Your task to perform on an android device: find which apps use the phone's location Image 0: 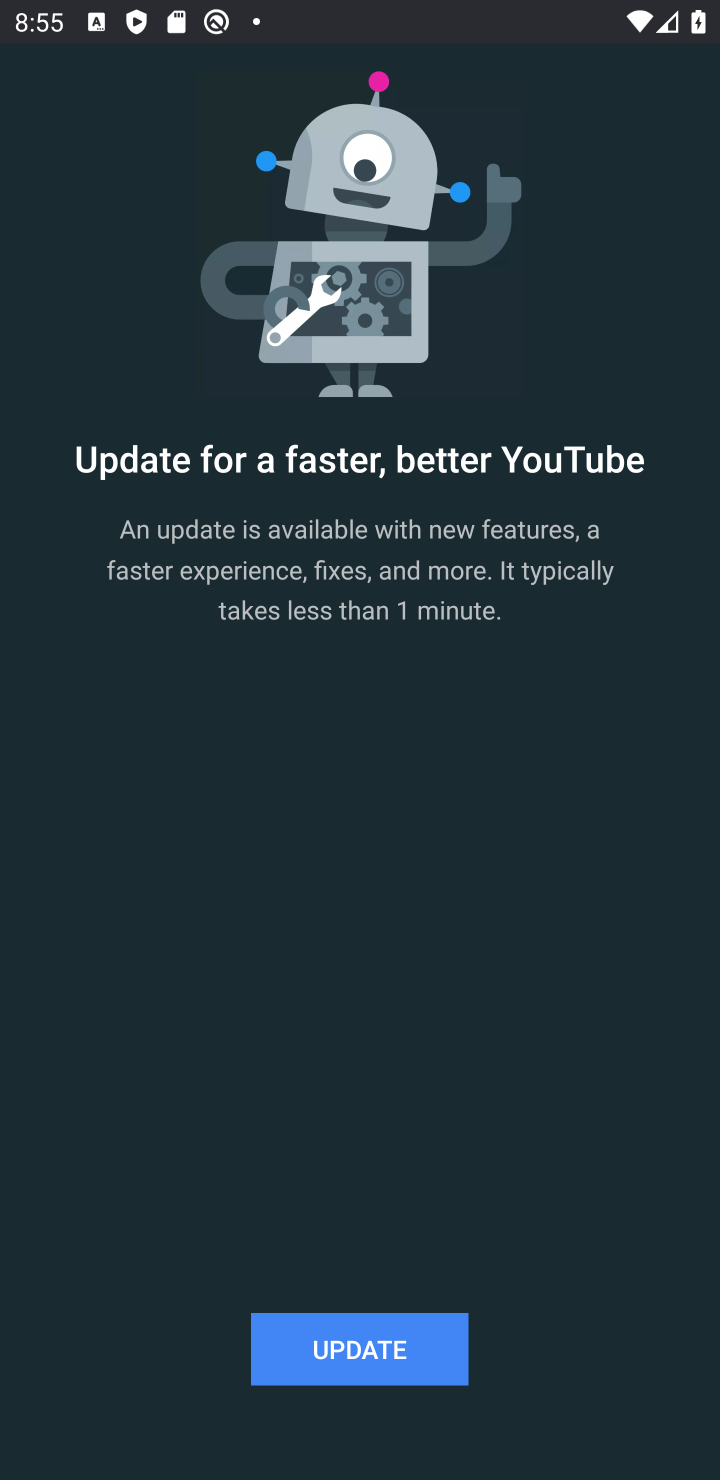
Step 0: press home button
Your task to perform on an android device: find which apps use the phone's location Image 1: 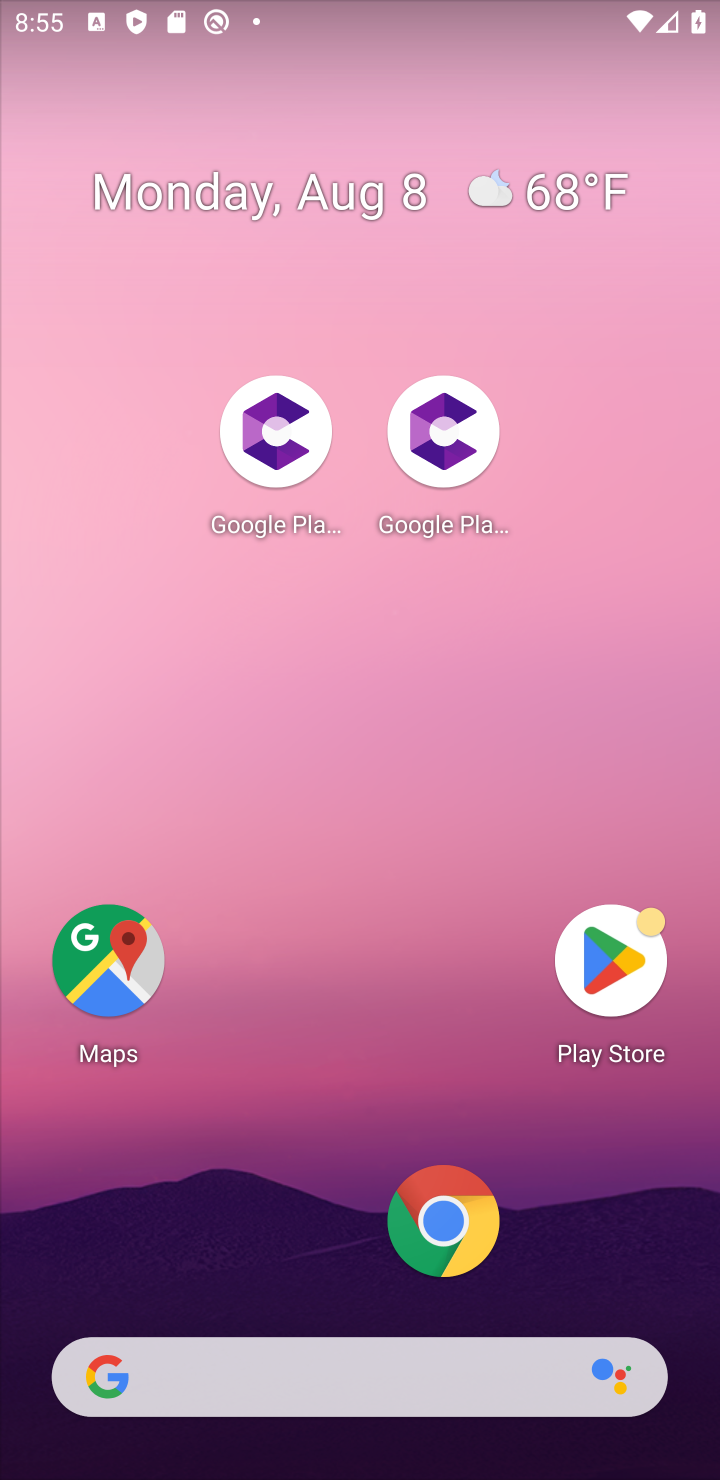
Step 1: drag from (244, 1294) to (325, 194)
Your task to perform on an android device: find which apps use the phone's location Image 2: 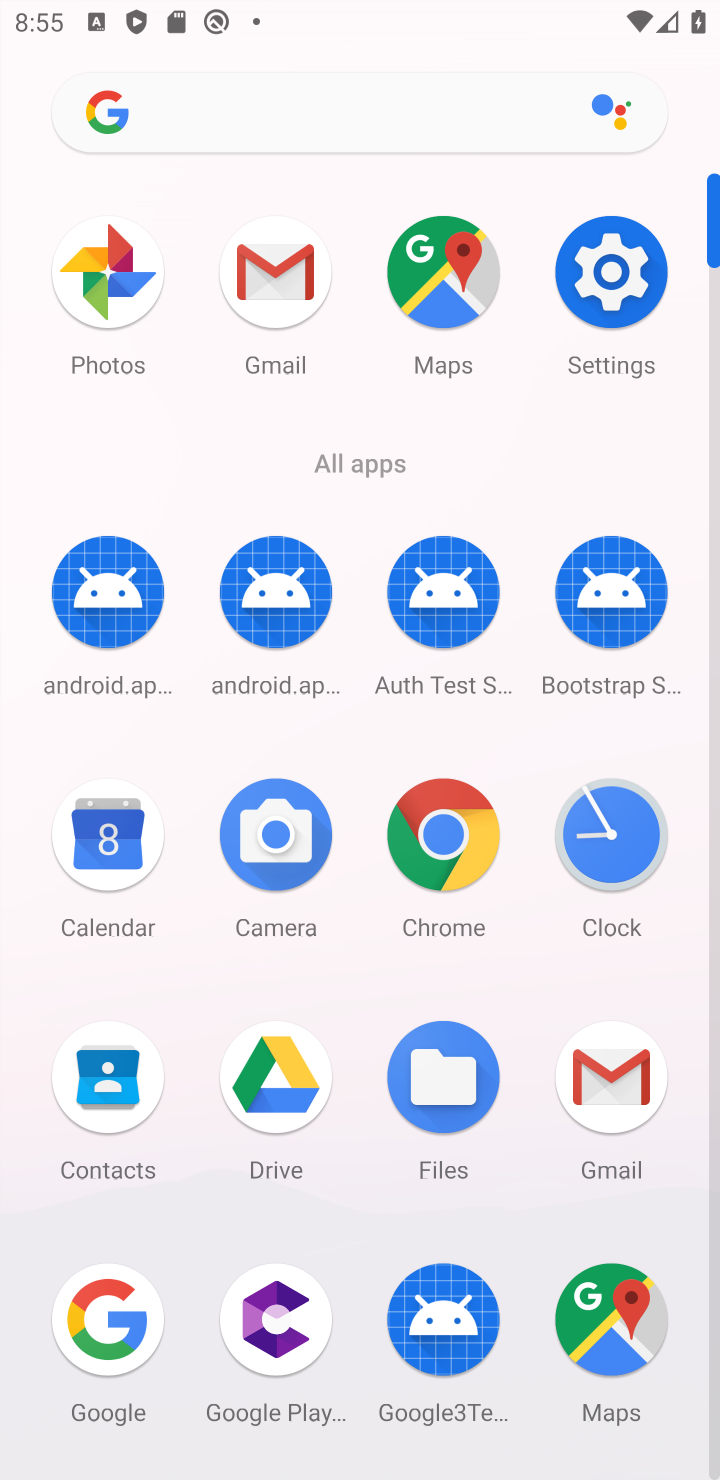
Step 2: click (605, 273)
Your task to perform on an android device: find which apps use the phone's location Image 3: 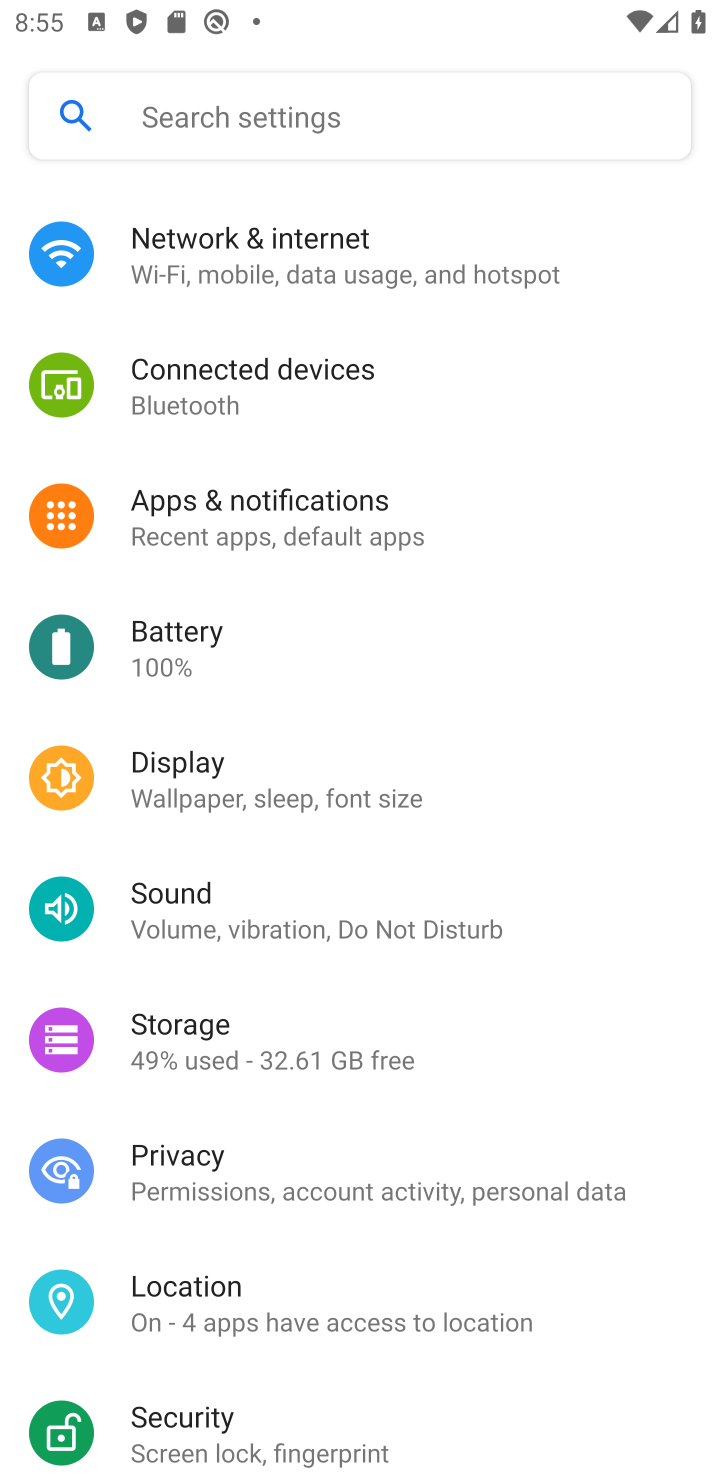
Step 3: click (605, 273)
Your task to perform on an android device: find which apps use the phone's location Image 4: 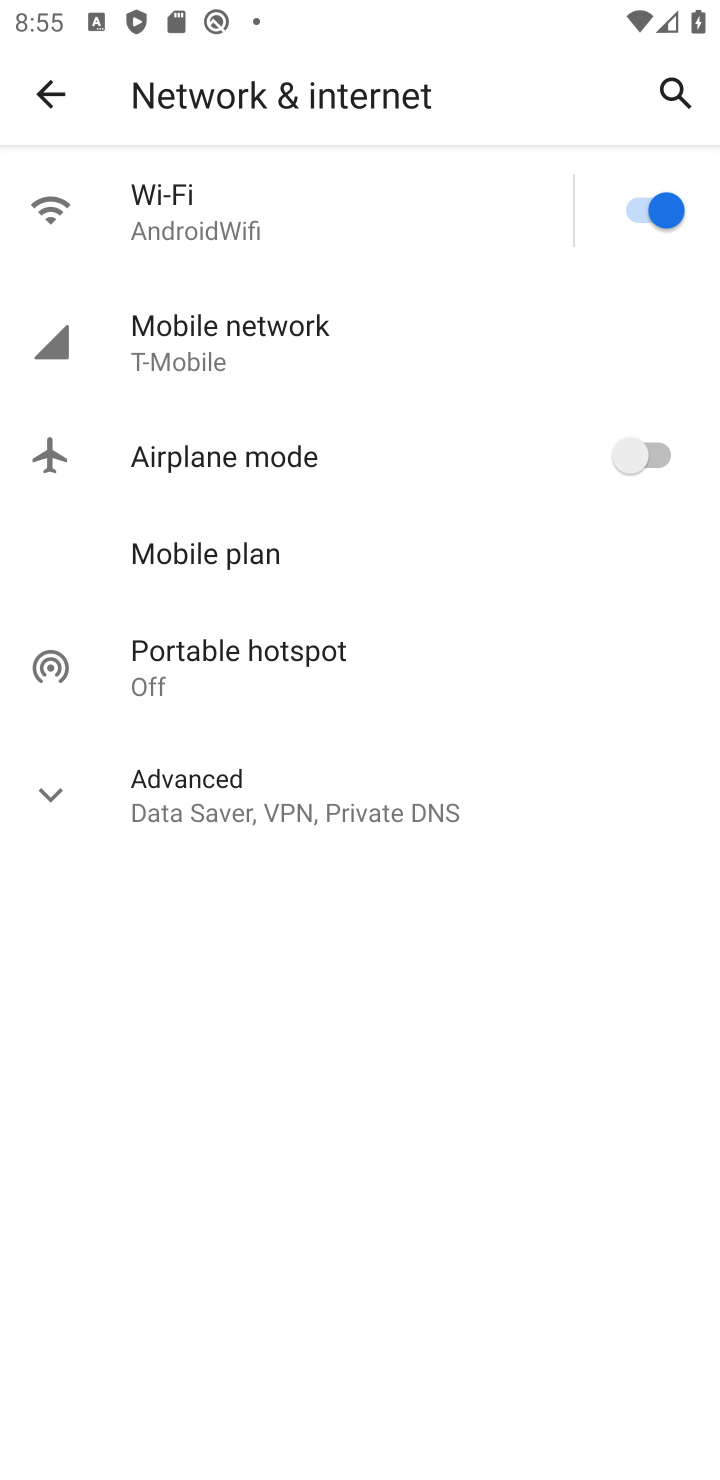
Step 4: click (244, 1328)
Your task to perform on an android device: find which apps use the phone's location Image 5: 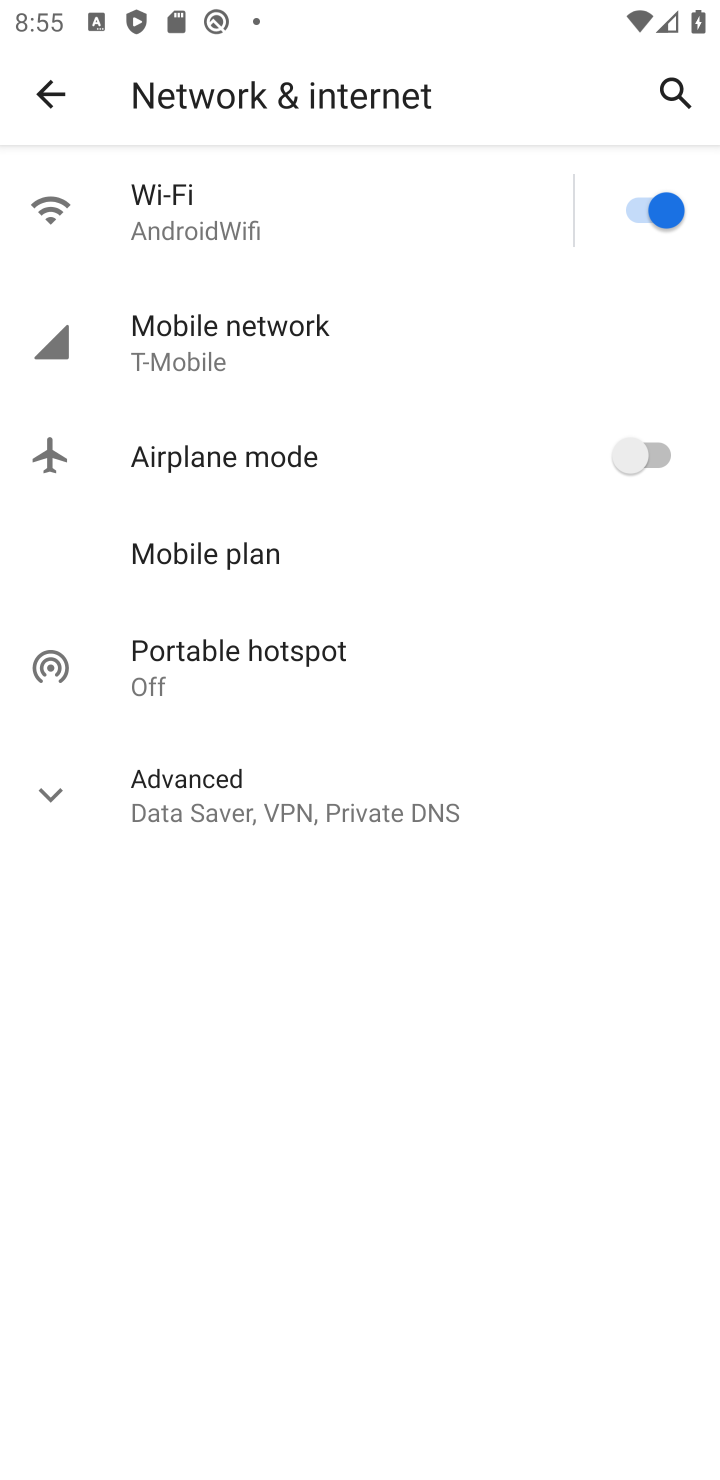
Step 5: click (49, 73)
Your task to perform on an android device: find which apps use the phone's location Image 6: 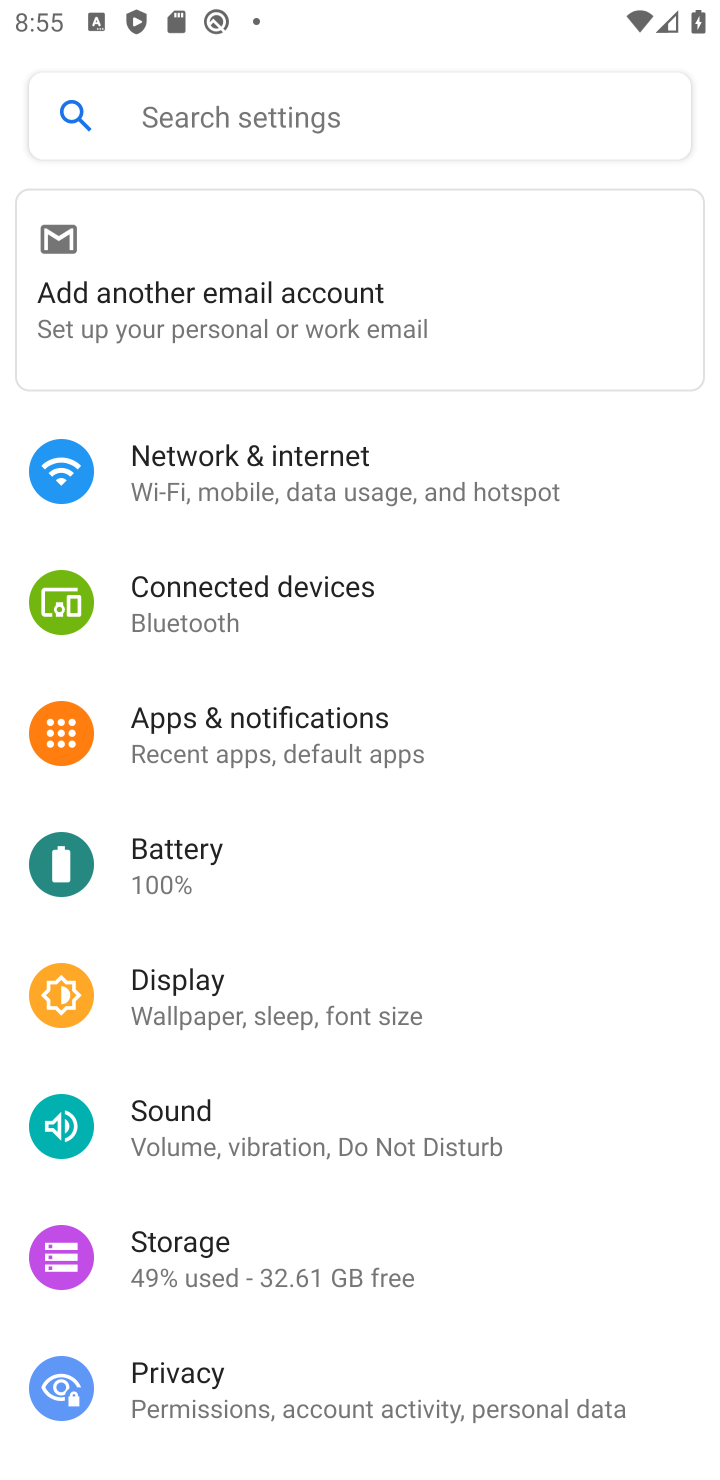
Step 6: drag from (329, 1339) to (484, 254)
Your task to perform on an android device: find which apps use the phone's location Image 7: 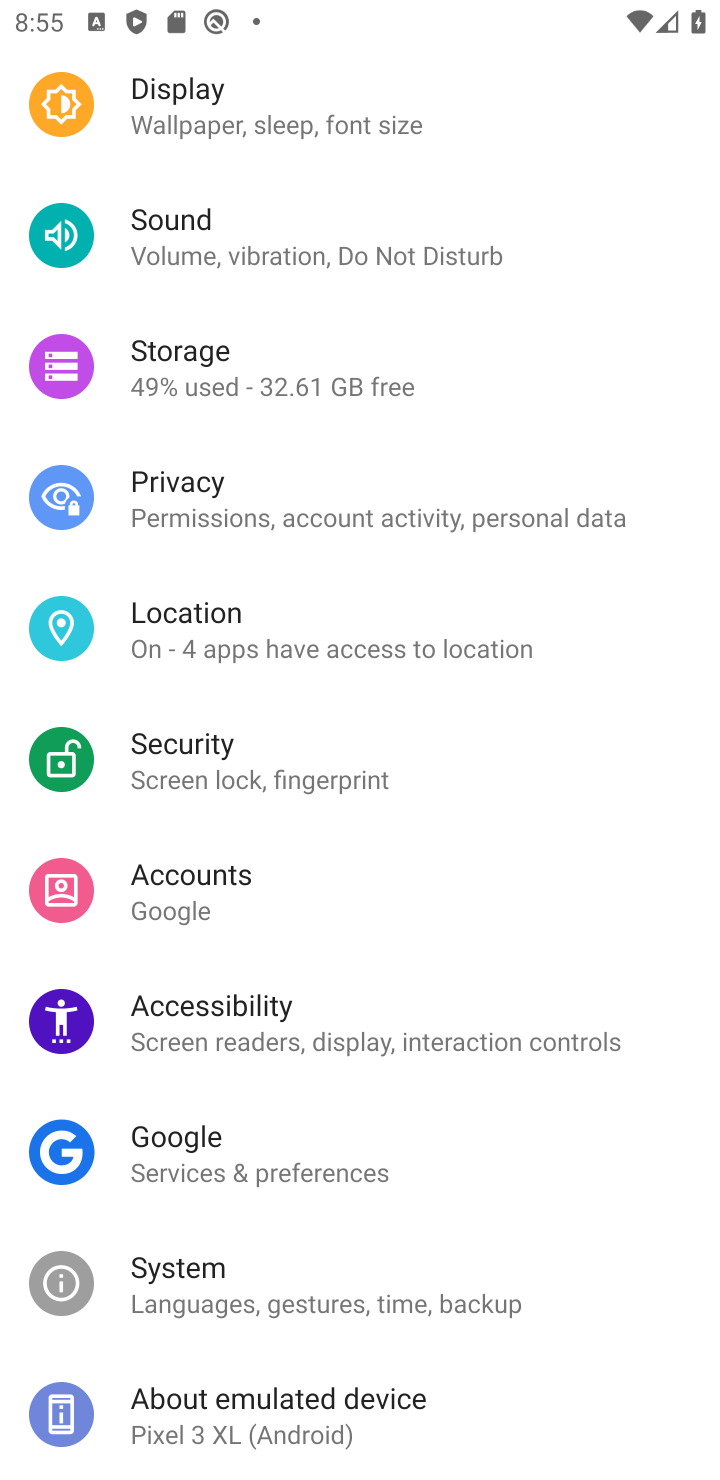
Step 7: drag from (494, 1336) to (596, 463)
Your task to perform on an android device: find which apps use the phone's location Image 8: 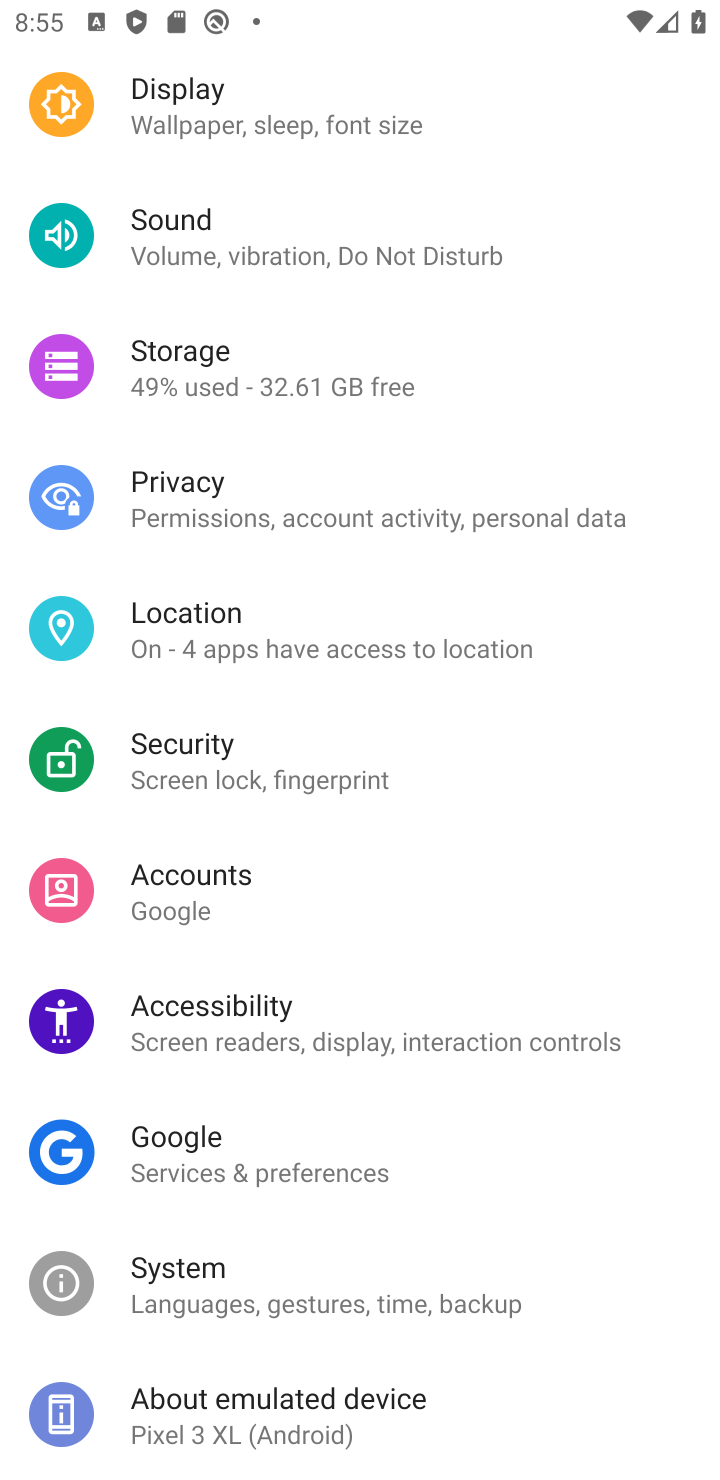
Step 8: click (201, 612)
Your task to perform on an android device: find which apps use the phone's location Image 9: 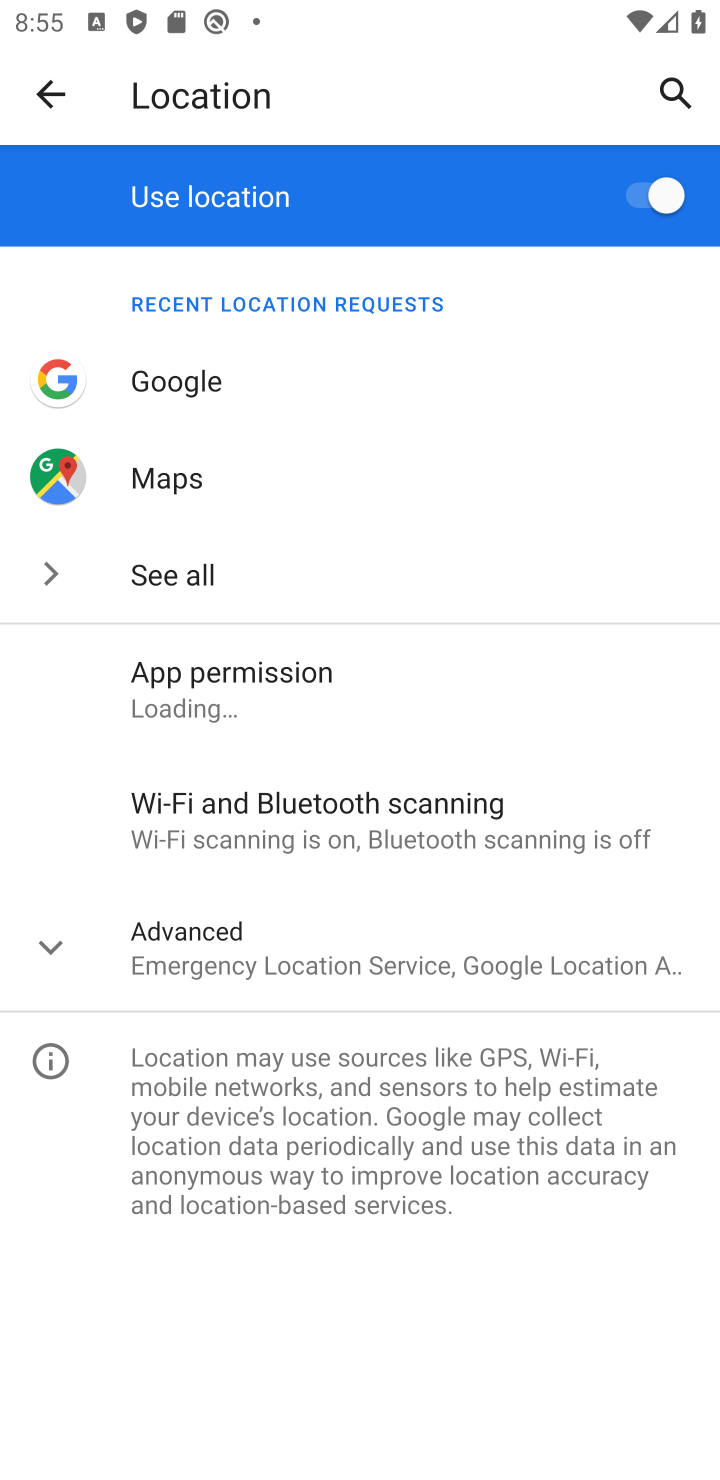
Step 9: click (178, 568)
Your task to perform on an android device: find which apps use the phone's location Image 10: 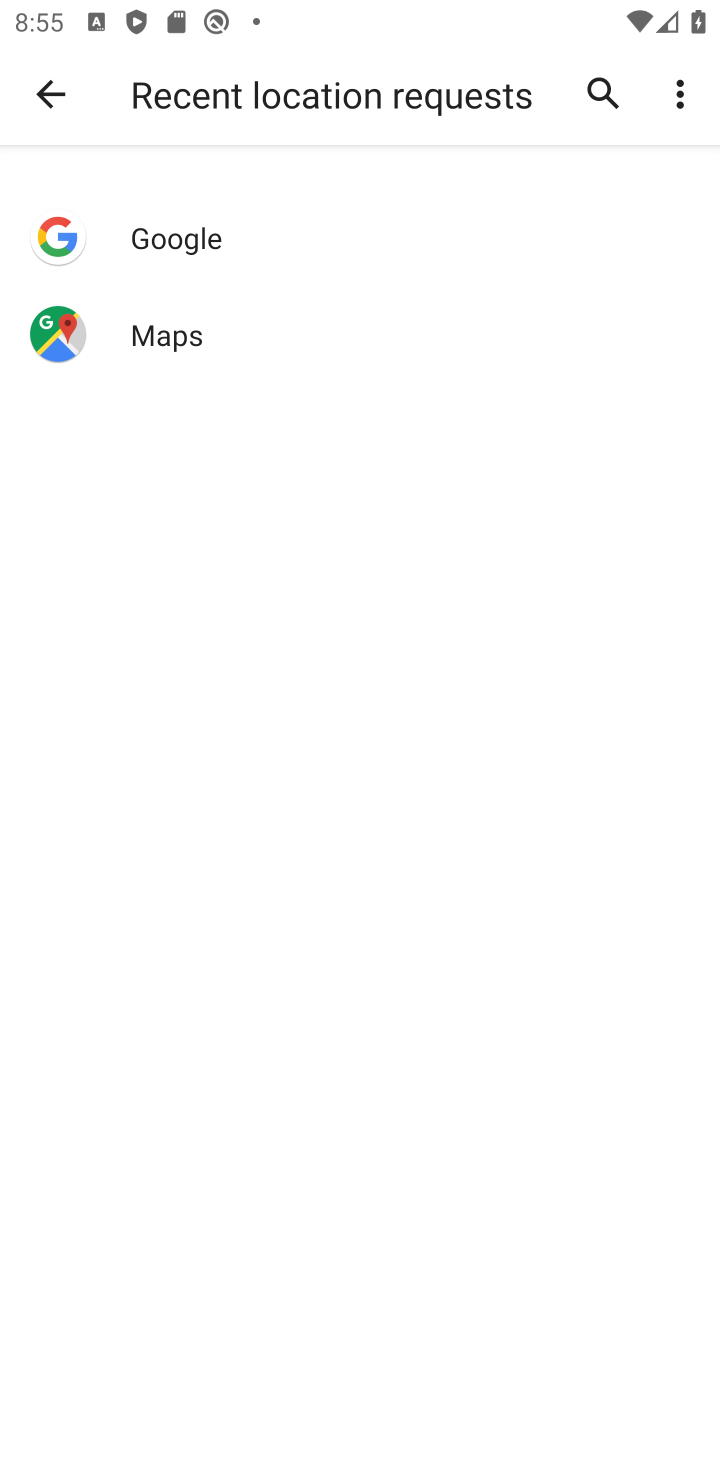
Step 10: task complete